Your task to perform on an android device: turn on data saver in the chrome app Image 0: 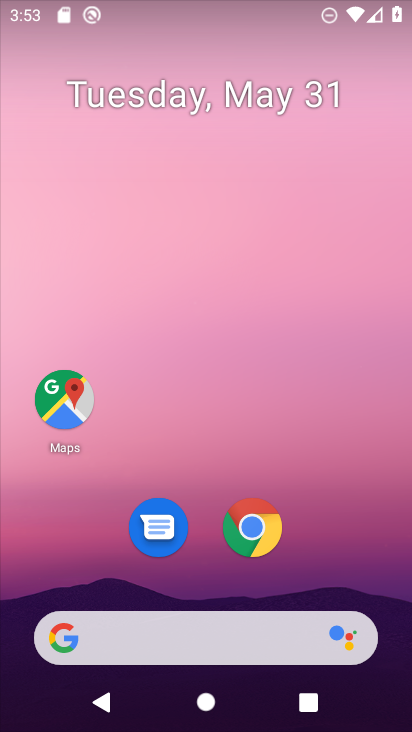
Step 0: click (250, 545)
Your task to perform on an android device: turn on data saver in the chrome app Image 1: 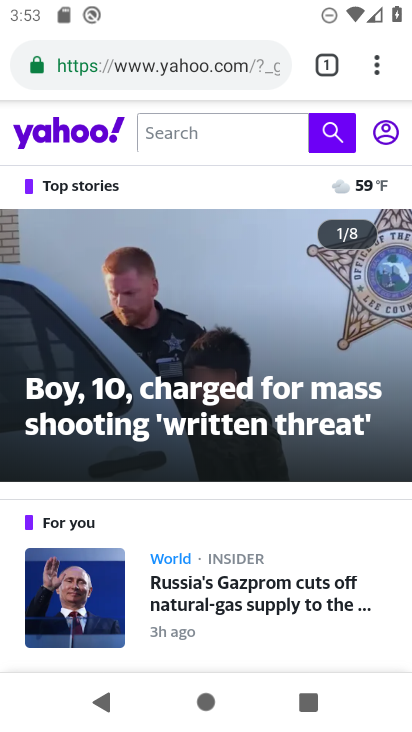
Step 1: click (373, 72)
Your task to perform on an android device: turn on data saver in the chrome app Image 2: 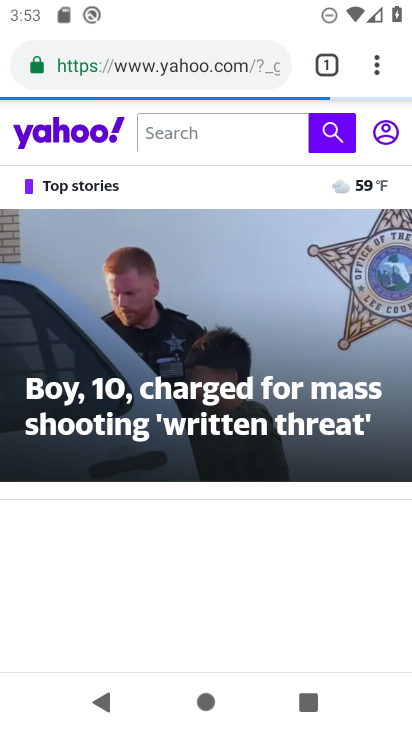
Step 2: drag from (378, 63) to (157, 586)
Your task to perform on an android device: turn on data saver in the chrome app Image 3: 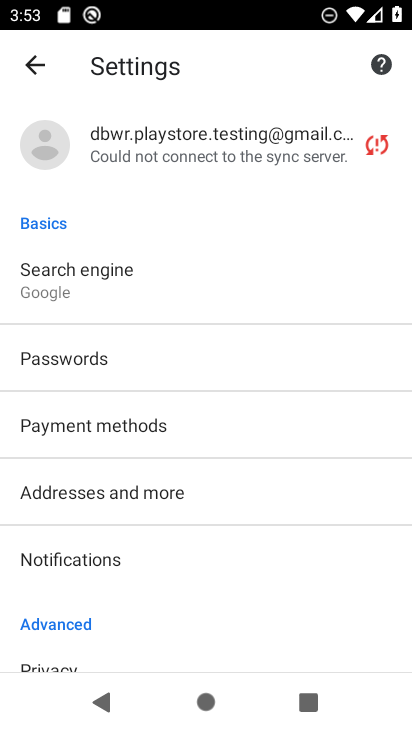
Step 3: drag from (166, 522) to (125, 57)
Your task to perform on an android device: turn on data saver in the chrome app Image 4: 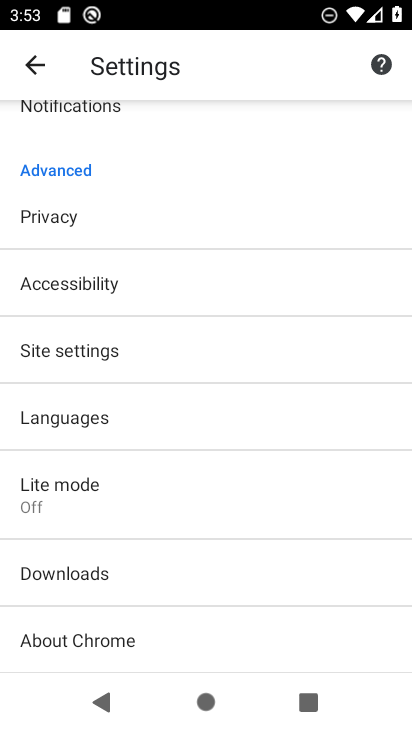
Step 4: click (64, 493)
Your task to perform on an android device: turn on data saver in the chrome app Image 5: 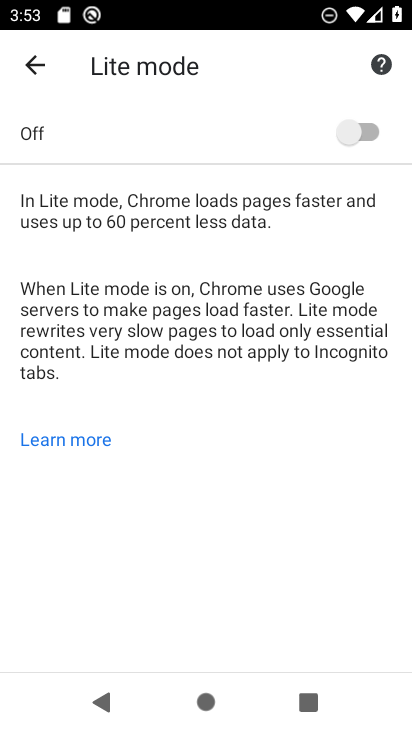
Step 5: click (338, 130)
Your task to perform on an android device: turn on data saver in the chrome app Image 6: 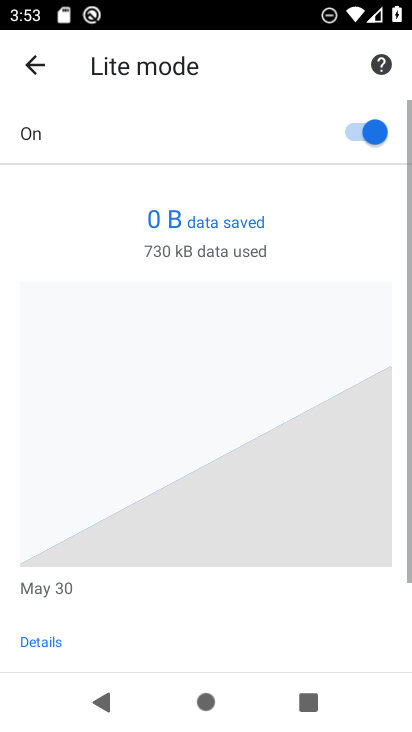
Step 6: task complete